Your task to perform on an android device: turn on data saver in the chrome app Image 0: 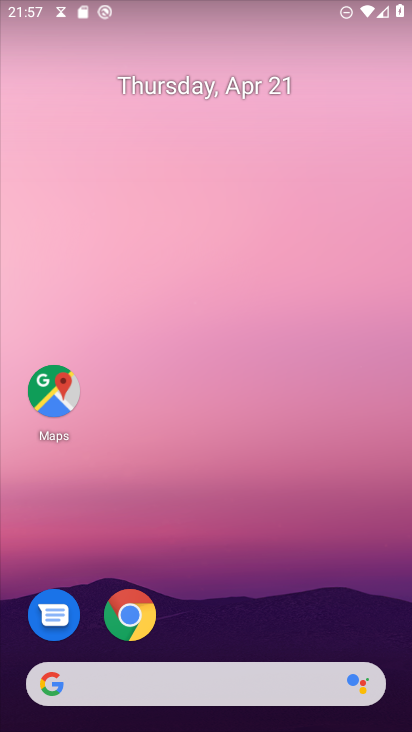
Step 0: drag from (228, 512) to (286, 53)
Your task to perform on an android device: turn on data saver in the chrome app Image 1: 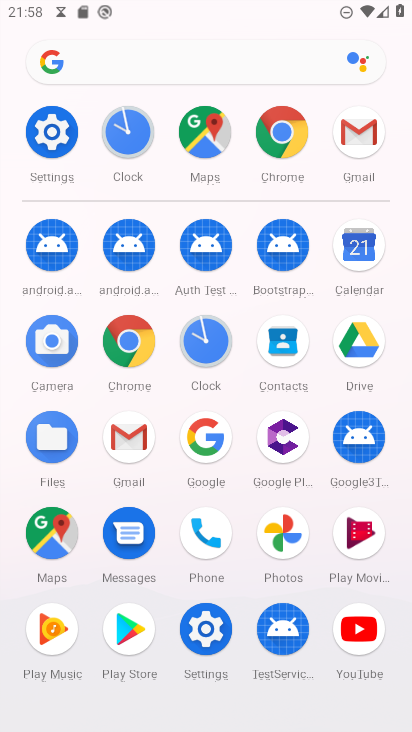
Step 1: click (133, 347)
Your task to perform on an android device: turn on data saver in the chrome app Image 2: 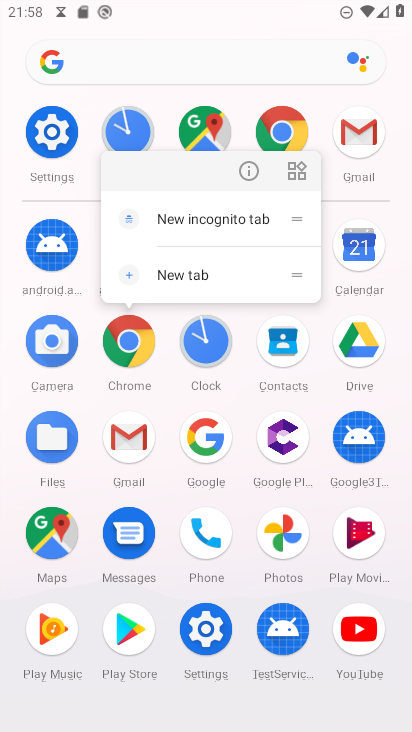
Step 2: click (263, 170)
Your task to perform on an android device: turn on data saver in the chrome app Image 3: 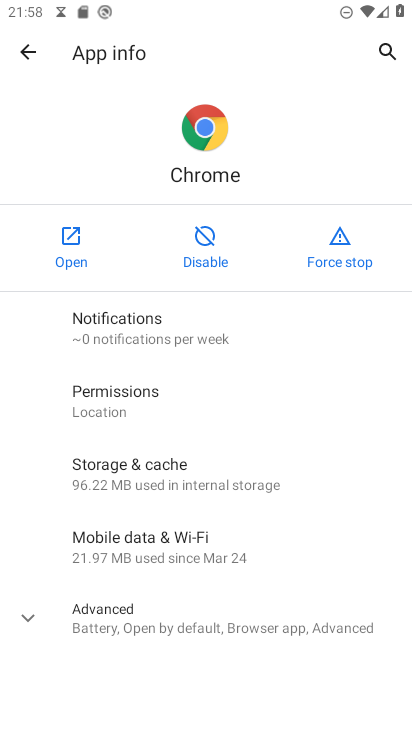
Step 3: click (66, 257)
Your task to perform on an android device: turn on data saver in the chrome app Image 4: 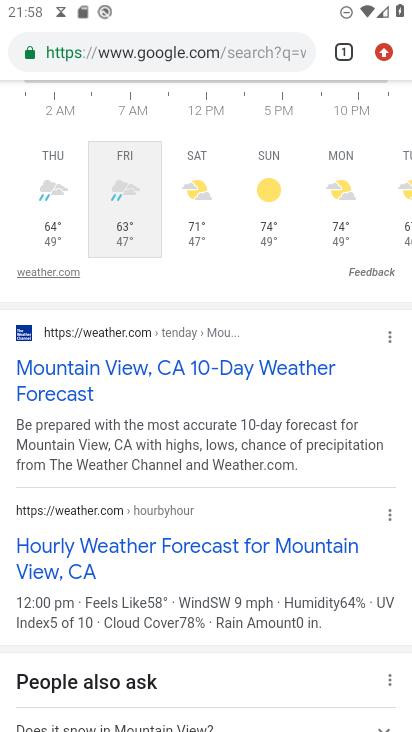
Step 4: drag from (188, 248) to (208, 664)
Your task to perform on an android device: turn on data saver in the chrome app Image 5: 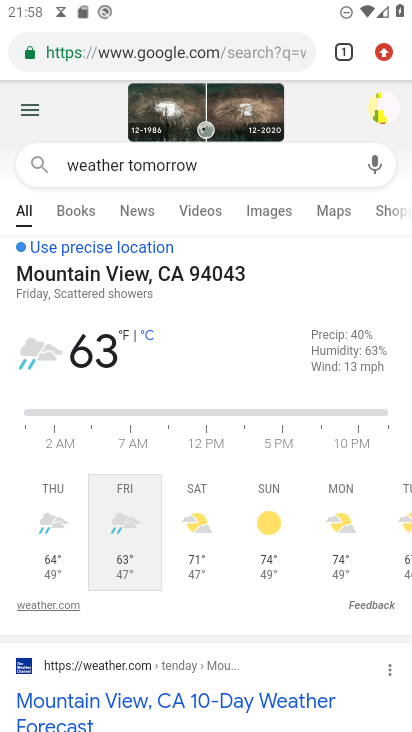
Step 5: drag from (163, 341) to (284, 613)
Your task to perform on an android device: turn on data saver in the chrome app Image 6: 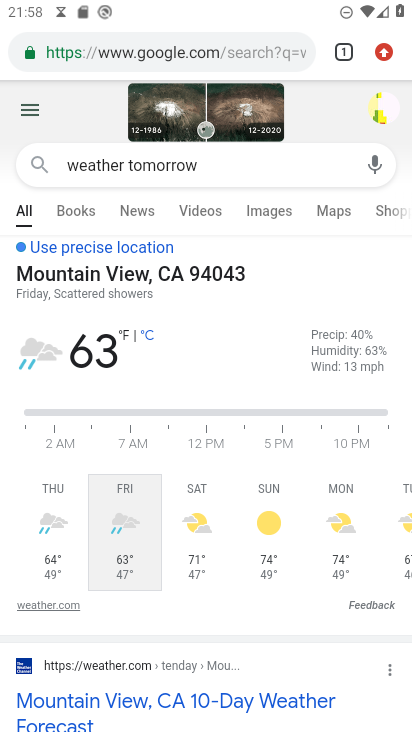
Step 6: drag from (387, 57) to (239, 634)
Your task to perform on an android device: turn on data saver in the chrome app Image 7: 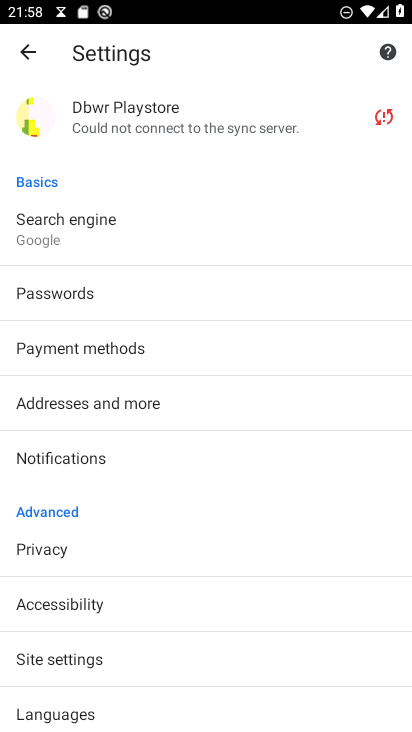
Step 7: drag from (155, 669) to (231, 267)
Your task to perform on an android device: turn on data saver in the chrome app Image 8: 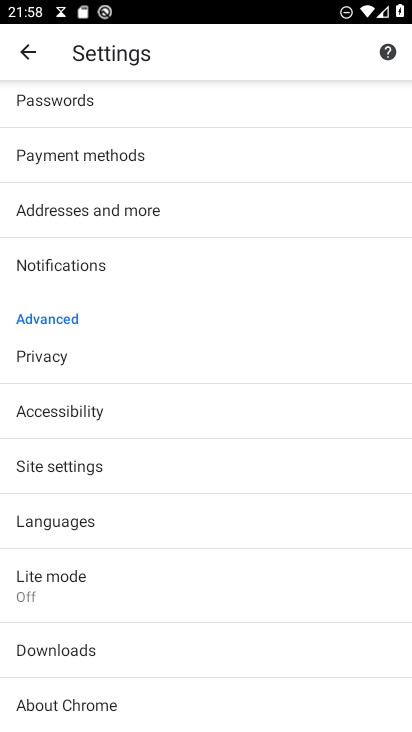
Step 8: click (104, 596)
Your task to perform on an android device: turn on data saver in the chrome app Image 9: 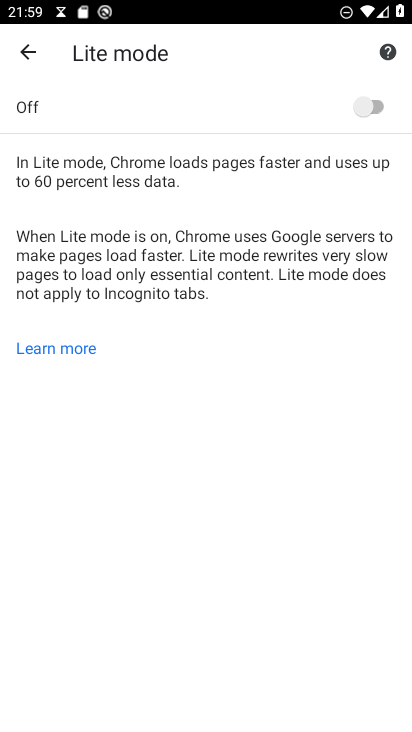
Step 9: click (353, 112)
Your task to perform on an android device: turn on data saver in the chrome app Image 10: 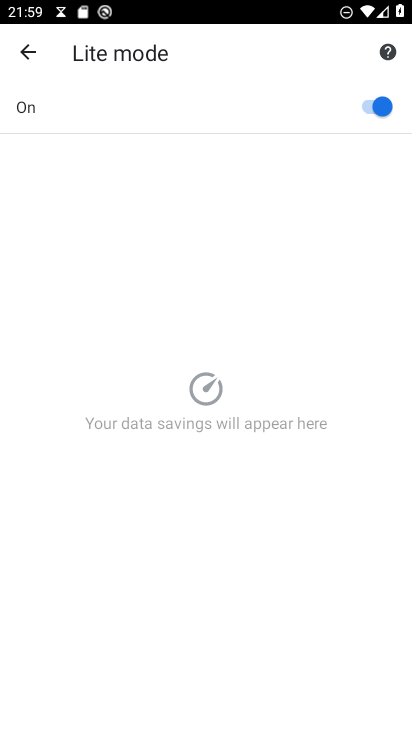
Step 10: task complete